Your task to perform on an android device: Go to privacy settings Image 0: 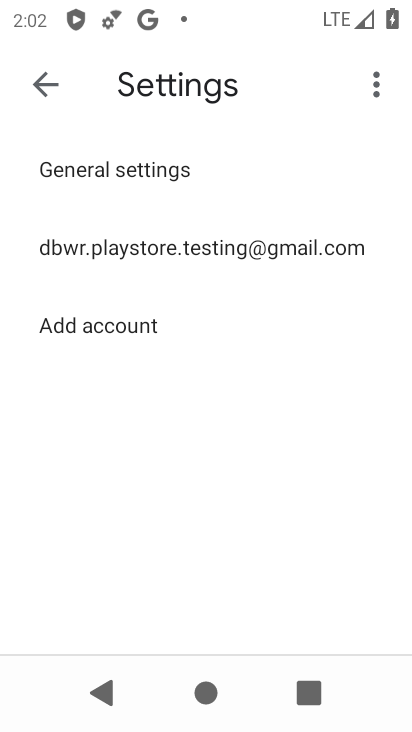
Step 0: press home button
Your task to perform on an android device: Go to privacy settings Image 1: 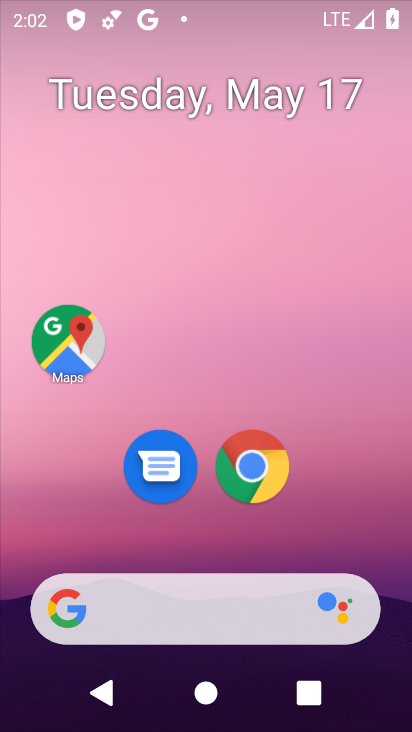
Step 1: drag from (341, 506) to (384, 127)
Your task to perform on an android device: Go to privacy settings Image 2: 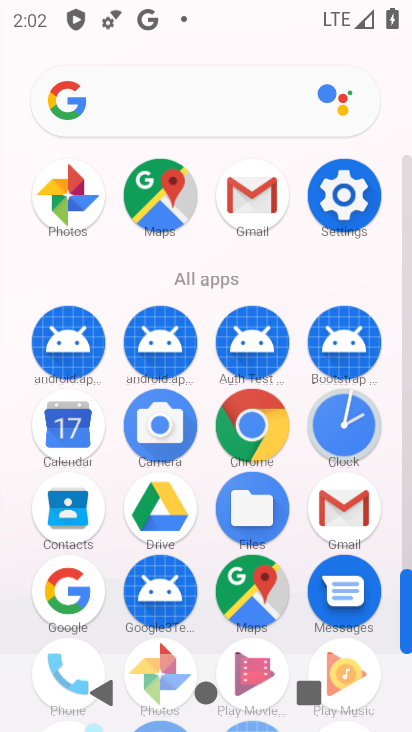
Step 2: click (352, 181)
Your task to perform on an android device: Go to privacy settings Image 3: 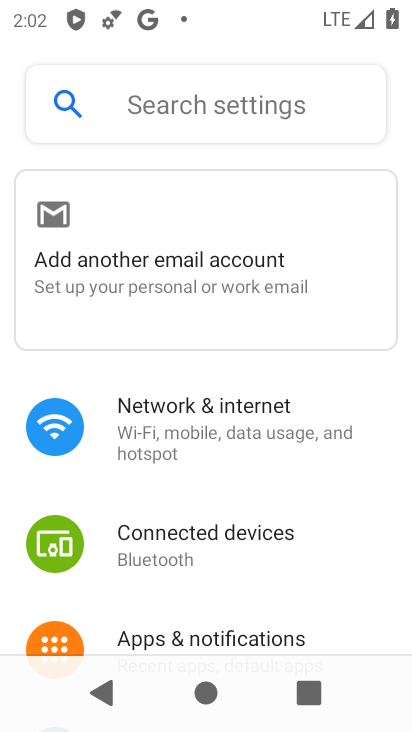
Step 3: drag from (225, 529) to (293, 67)
Your task to perform on an android device: Go to privacy settings Image 4: 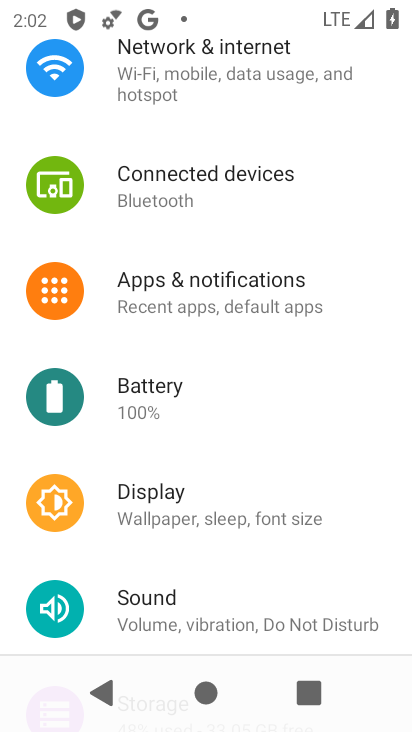
Step 4: drag from (178, 529) to (335, 173)
Your task to perform on an android device: Go to privacy settings Image 5: 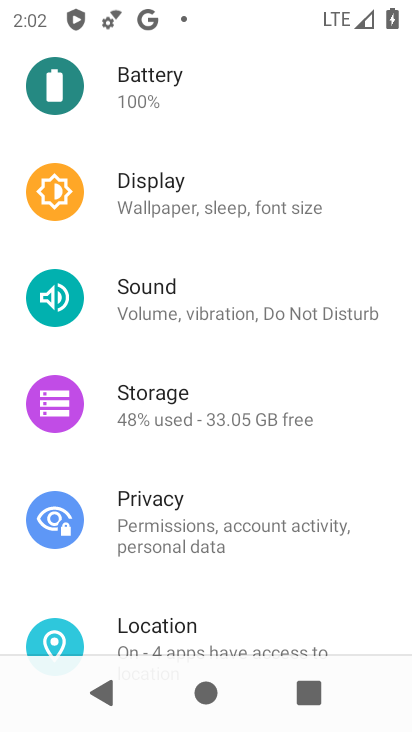
Step 5: click (157, 524)
Your task to perform on an android device: Go to privacy settings Image 6: 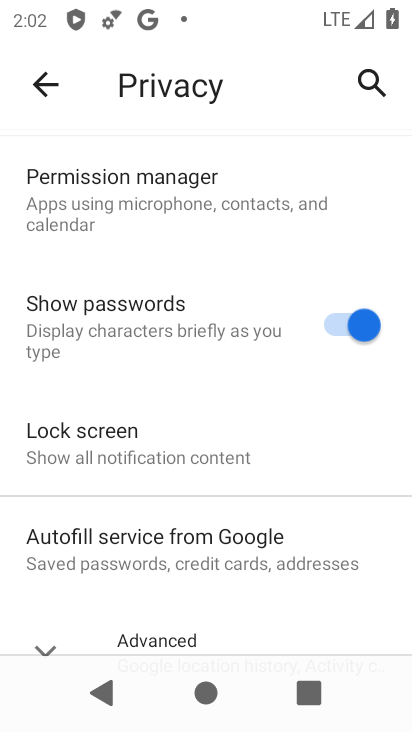
Step 6: task complete